Your task to perform on an android device: delete the emails in spam in the gmail app Image 0: 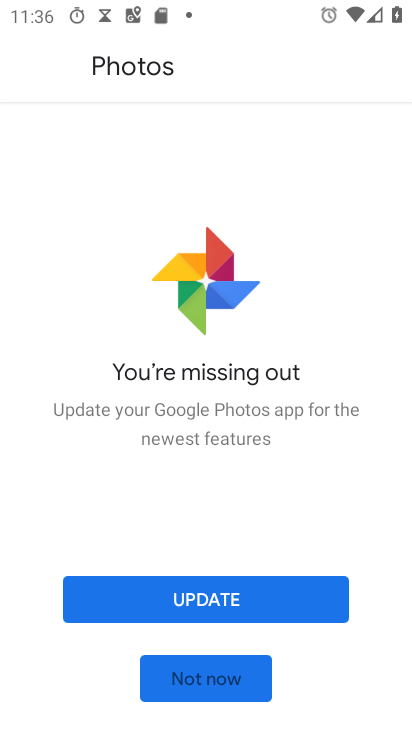
Step 0: press home button
Your task to perform on an android device: delete the emails in spam in the gmail app Image 1: 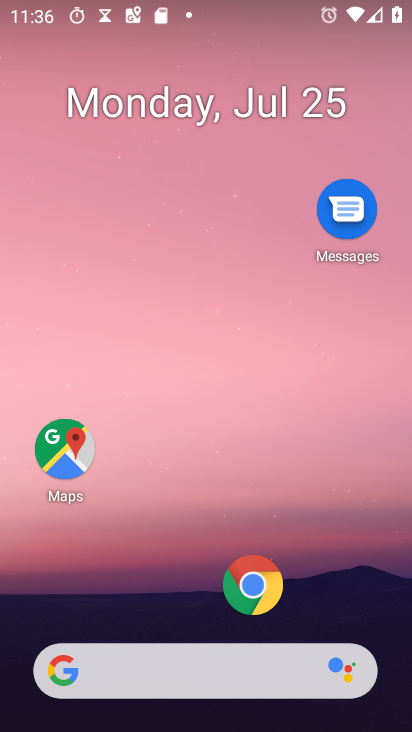
Step 1: drag from (181, 677) to (307, 67)
Your task to perform on an android device: delete the emails in spam in the gmail app Image 2: 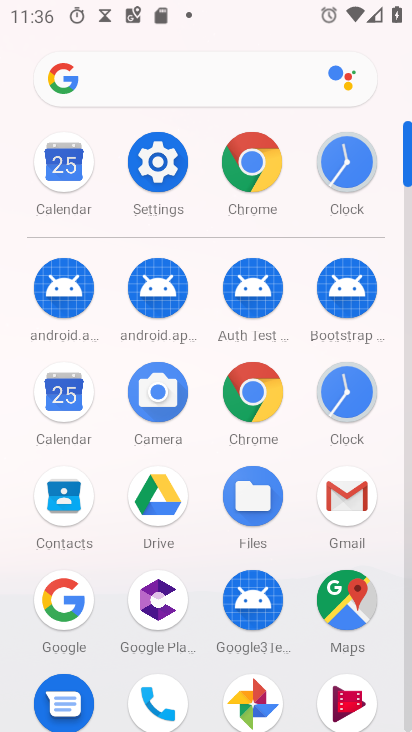
Step 2: click (346, 504)
Your task to perform on an android device: delete the emails in spam in the gmail app Image 3: 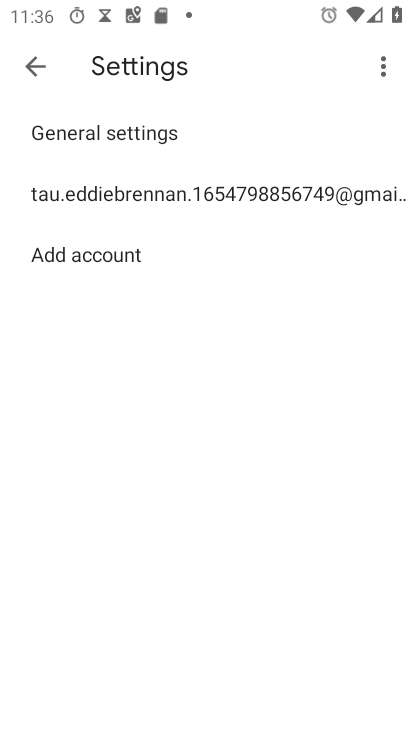
Step 3: click (41, 66)
Your task to perform on an android device: delete the emails in spam in the gmail app Image 4: 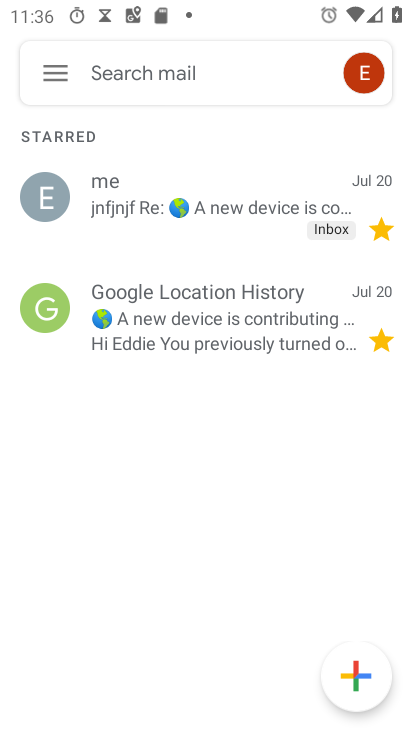
Step 4: click (48, 73)
Your task to perform on an android device: delete the emails in spam in the gmail app Image 5: 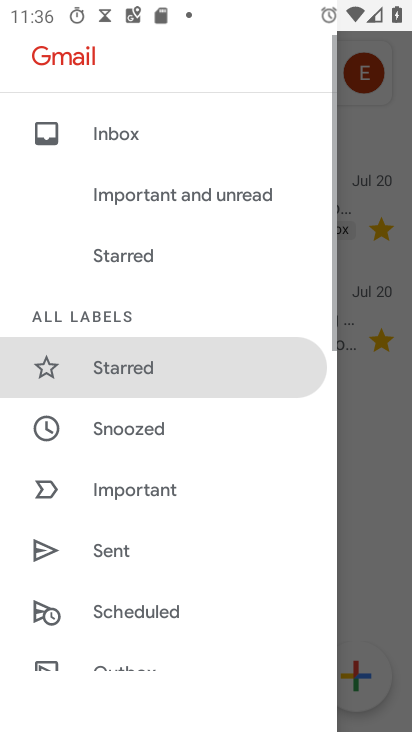
Step 5: drag from (181, 609) to (295, 97)
Your task to perform on an android device: delete the emails in spam in the gmail app Image 6: 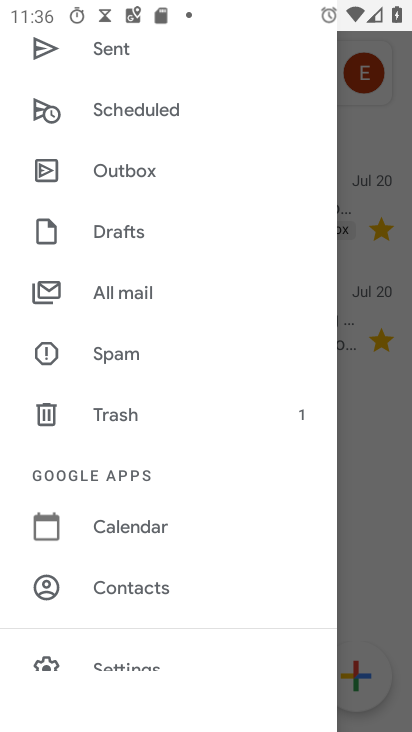
Step 6: click (131, 356)
Your task to perform on an android device: delete the emails in spam in the gmail app Image 7: 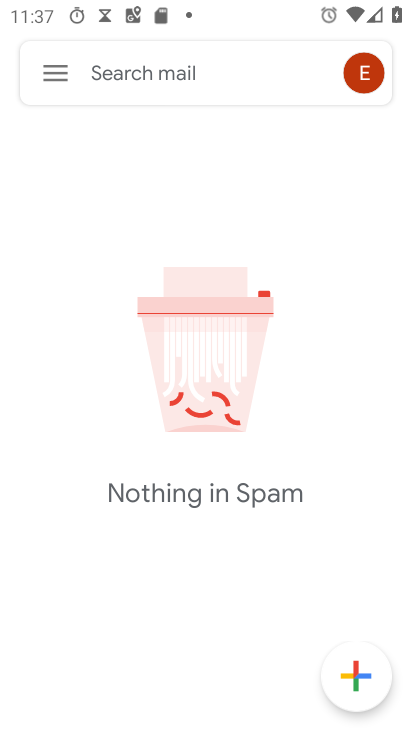
Step 7: task complete